Your task to perform on an android device: allow cookies in the chrome app Image 0: 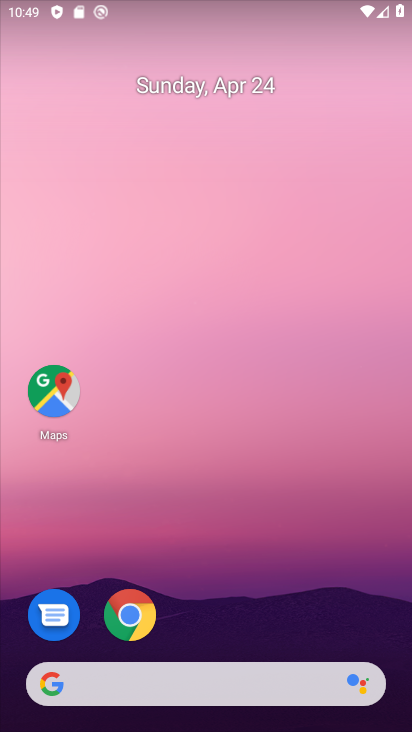
Step 0: click (128, 613)
Your task to perform on an android device: allow cookies in the chrome app Image 1: 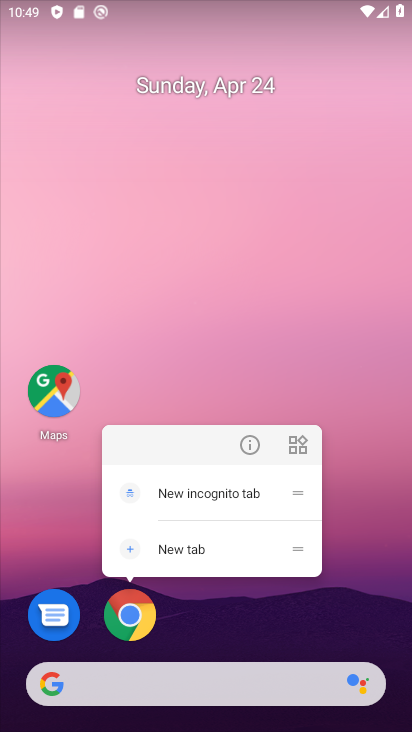
Step 1: click (128, 608)
Your task to perform on an android device: allow cookies in the chrome app Image 2: 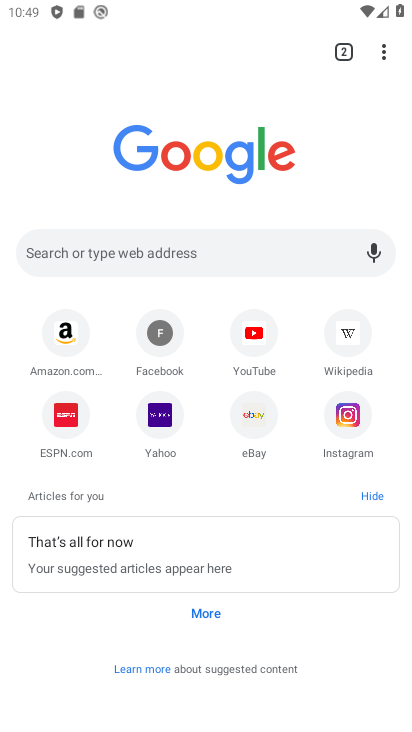
Step 2: click (387, 44)
Your task to perform on an android device: allow cookies in the chrome app Image 3: 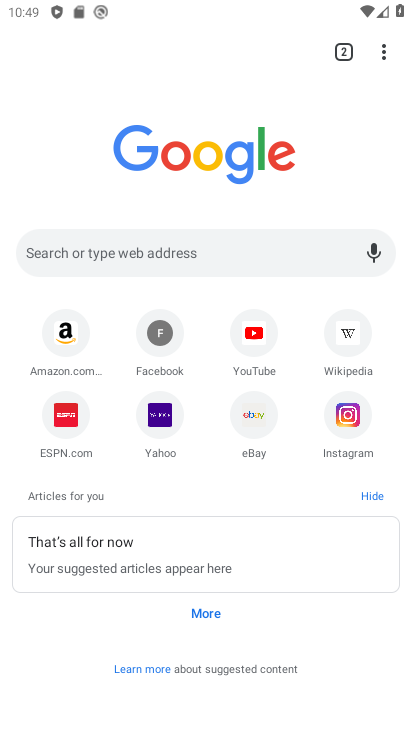
Step 3: click (378, 44)
Your task to perform on an android device: allow cookies in the chrome app Image 4: 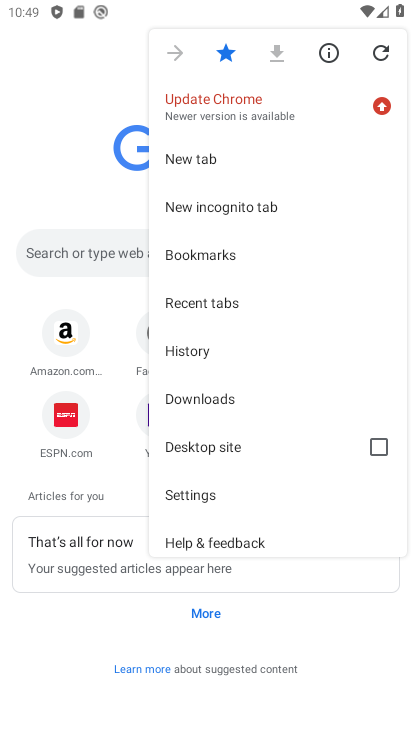
Step 4: click (206, 498)
Your task to perform on an android device: allow cookies in the chrome app Image 5: 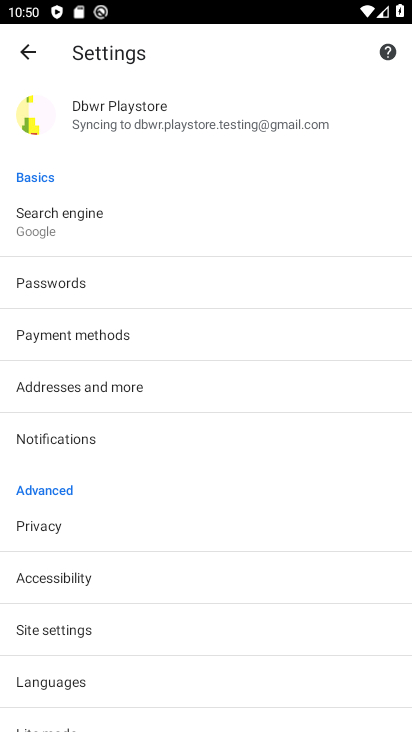
Step 5: click (97, 634)
Your task to perform on an android device: allow cookies in the chrome app Image 6: 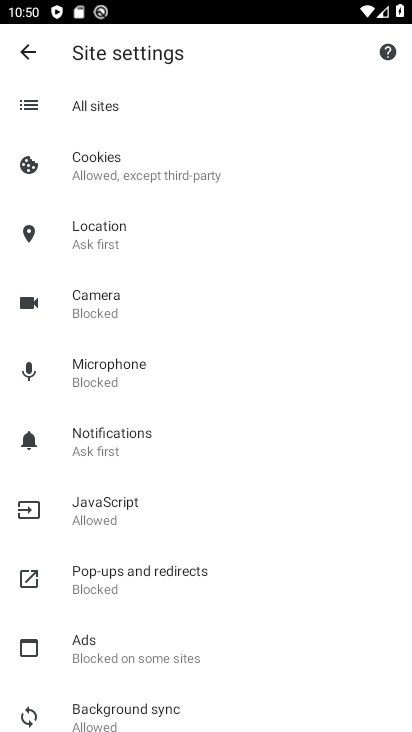
Step 6: click (121, 163)
Your task to perform on an android device: allow cookies in the chrome app Image 7: 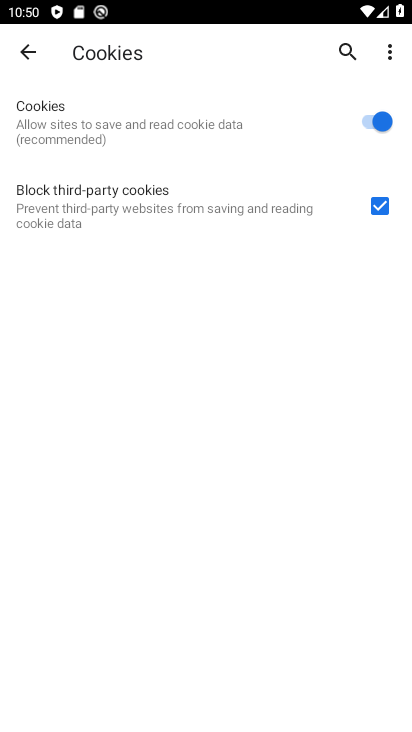
Step 7: task complete